Your task to perform on an android device: change the clock display to analog Image 0: 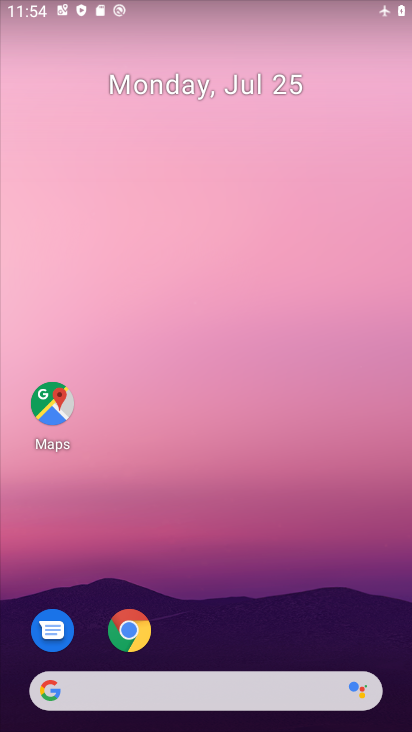
Step 0: press home button
Your task to perform on an android device: change the clock display to analog Image 1: 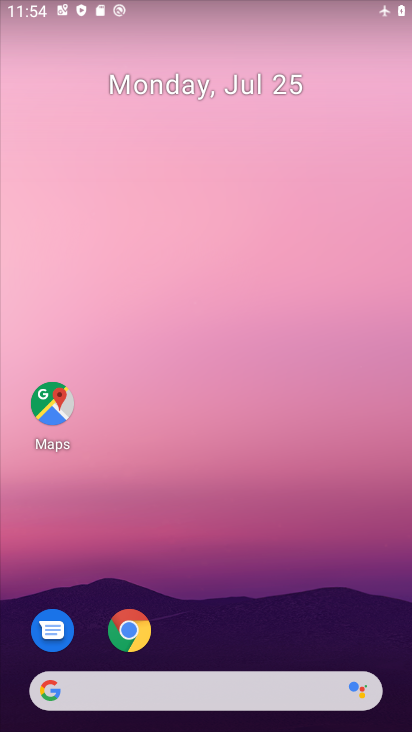
Step 1: drag from (345, 628) to (363, 54)
Your task to perform on an android device: change the clock display to analog Image 2: 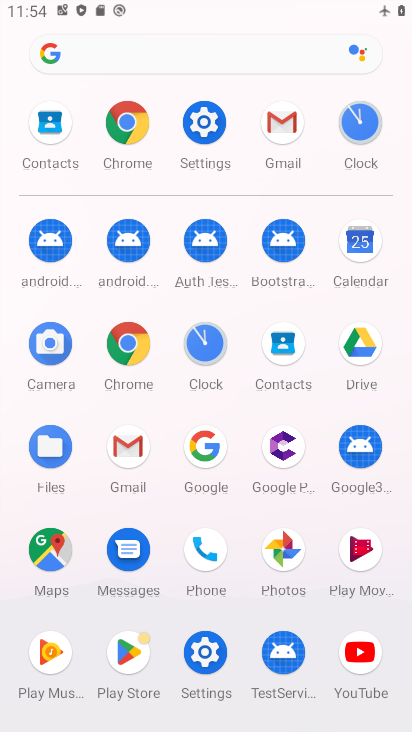
Step 2: click (212, 343)
Your task to perform on an android device: change the clock display to analog Image 3: 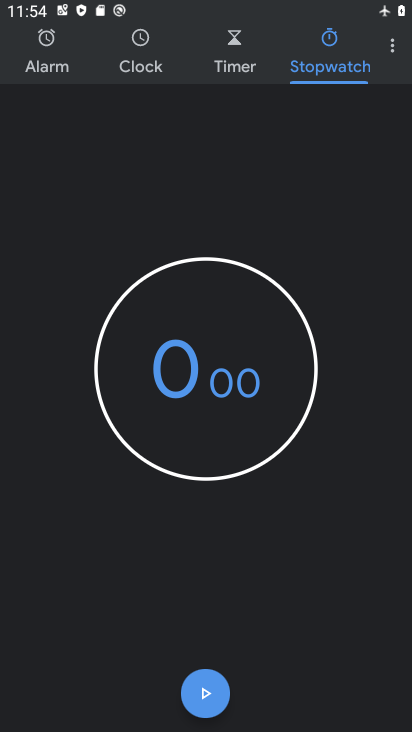
Step 3: click (390, 49)
Your task to perform on an android device: change the clock display to analog Image 4: 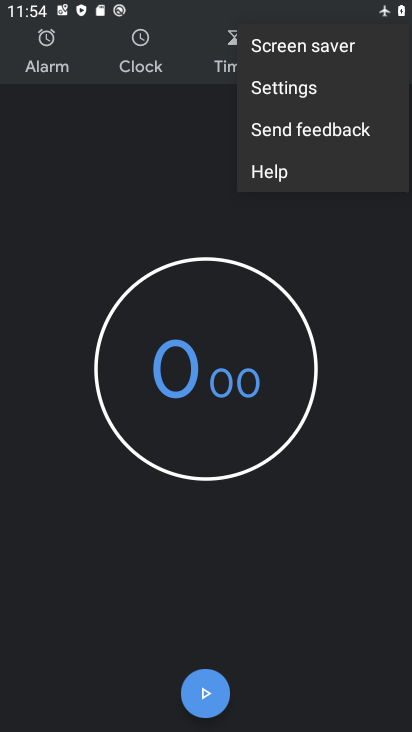
Step 4: click (327, 92)
Your task to perform on an android device: change the clock display to analog Image 5: 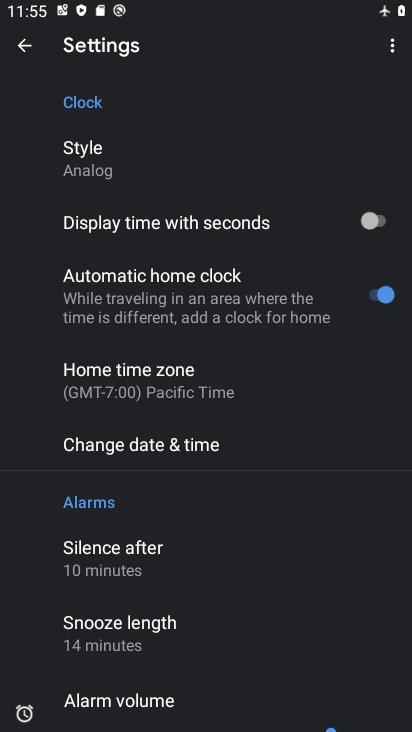
Step 5: task complete